Your task to perform on an android device: turn off data saver in the chrome app Image 0: 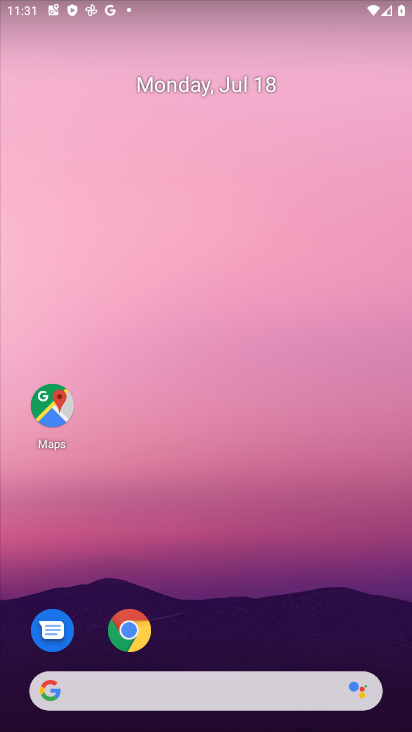
Step 0: drag from (388, 642) to (267, 22)
Your task to perform on an android device: turn off data saver in the chrome app Image 1: 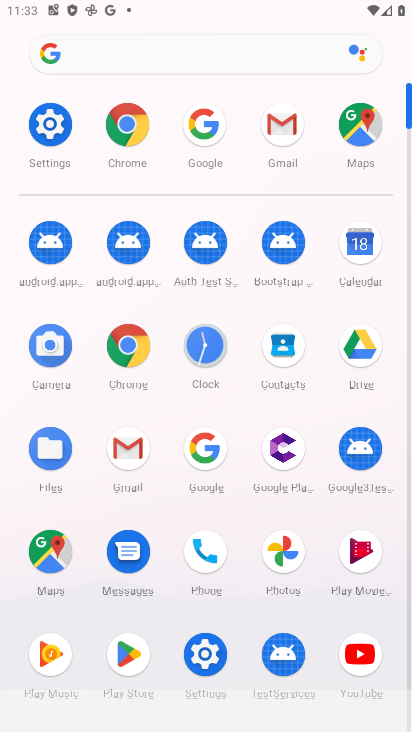
Step 1: click (143, 338)
Your task to perform on an android device: turn off data saver in the chrome app Image 2: 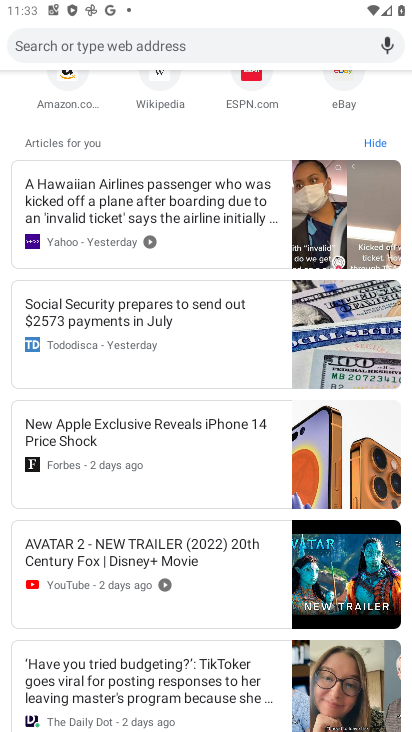
Step 2: task complete